Your task to perform on an android device: Show me productivity apps on the Play Store Image 0: 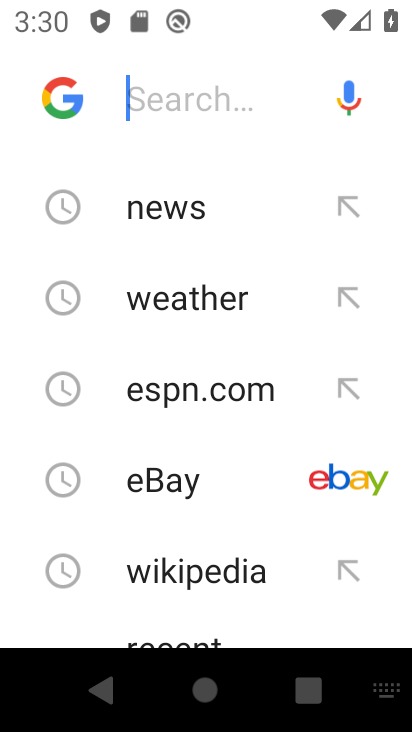
Step 0: press home button
Your task to perform on an android device: Show me productivity apps on the Play Store Image 1: 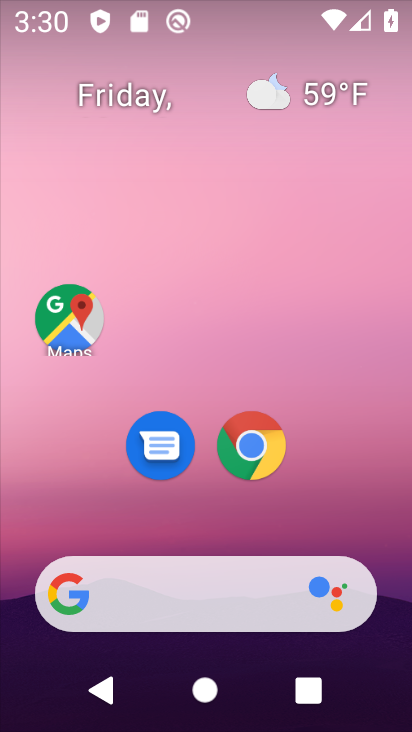
Step 1: drag from (398, 580) to (317, 112)
Your task to perform on an android device: Show me productivity apps on the Play Store Image 2: 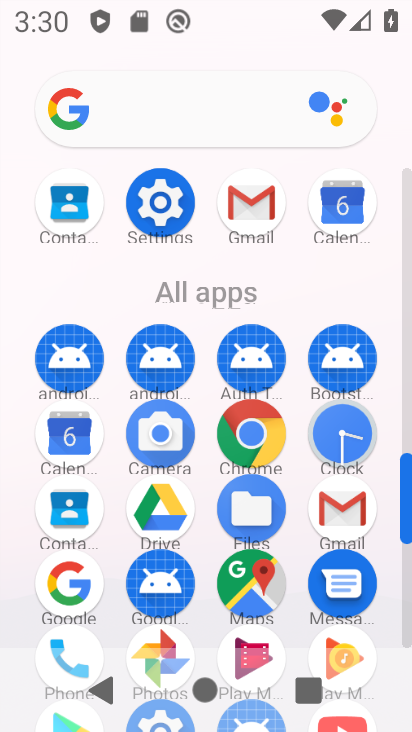
Step 2: click (409, 637)
Your task to perform on an android device: Show me productivity apps on the Play Store Image 3: 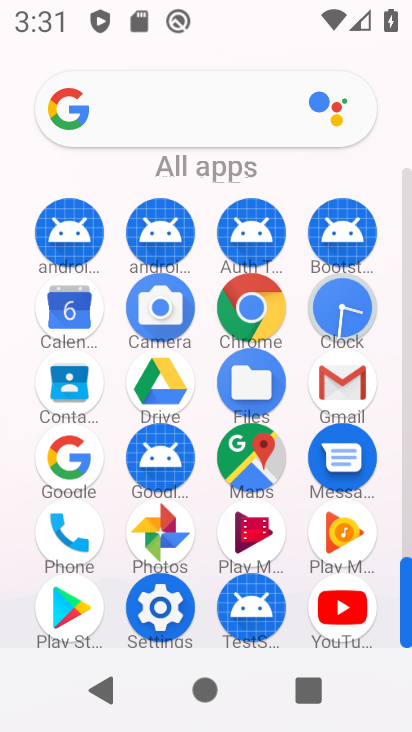
Step 3: click (51, 601)
Your task to perform on an android device: Show me productivity apps on the Play Store Image 4: 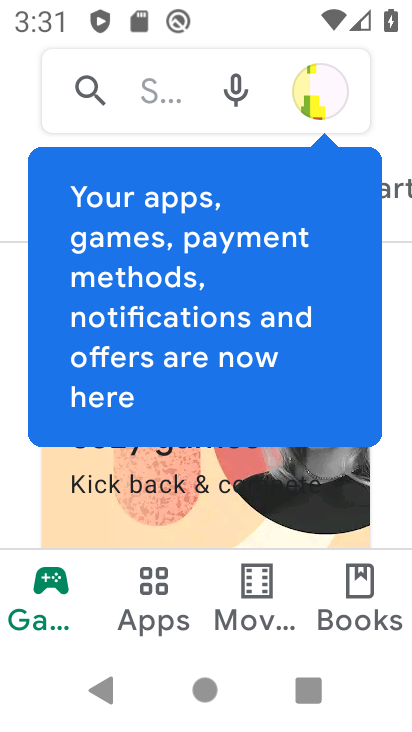
Step 4: click (147, 634)
Your task to perform on an android device: Show me productivity apps on the Play Store Image 5: 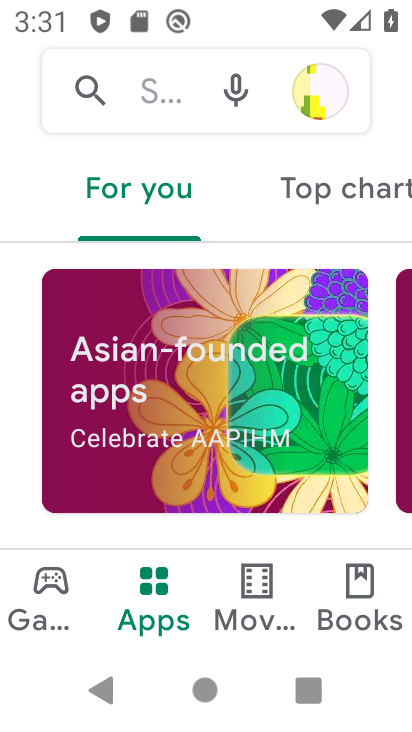
Step 5: drag from (347, 194) to (16, 194)
Your task to perform on an android device: Show me productivity apps on the Play Store Image 6: 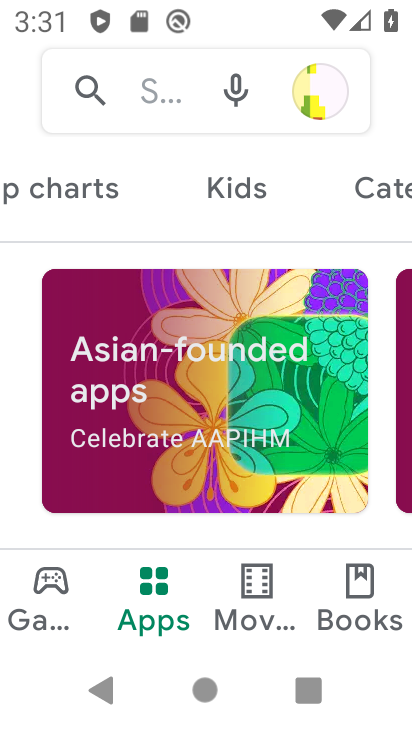
Step 6: click (377, 182)
Your task to perform on an android device: Show me productivity apps on the Play Store Image 7: 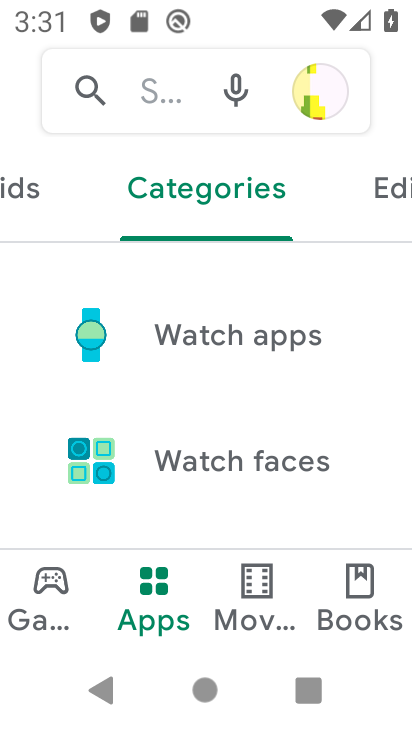
Step 7: drag from (266, 462) to (245, 86)
Your task to perform on an android device: Show me productivity apps on the Play Store Image 8: 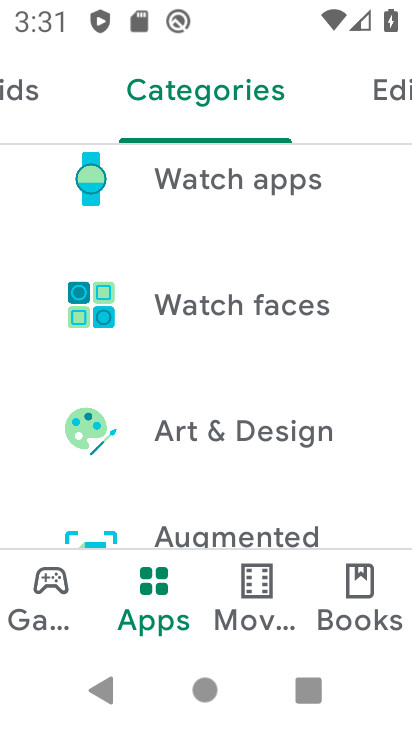
Step 8: drag from (269, 496) to (248, 73)
Your task to perform on an android device: Show me productivity apps on the Play Store Image 9: 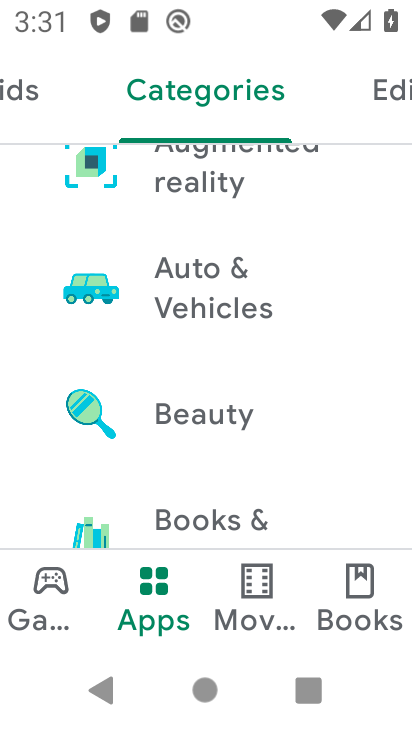
Step 9: drag from (297, 507) to (207, 15)
Your task to perform on an android device: Show me productivity apps on the Play Store Image 10: 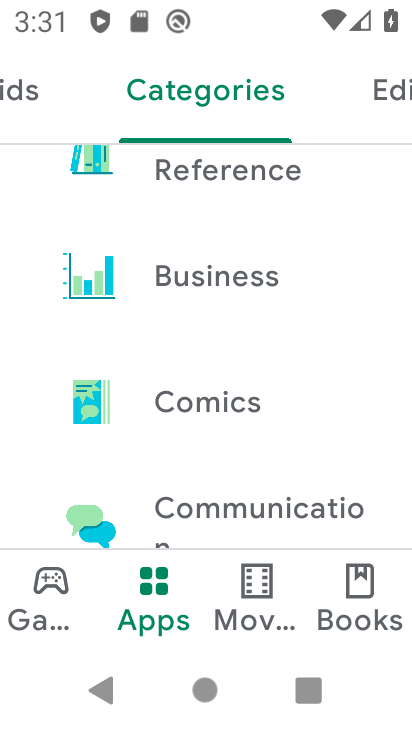
Step 10: drag from (276, 477) to (230, 2)
Your task to perform on an android device: Show me productivity apps on the Play Store Image 11: 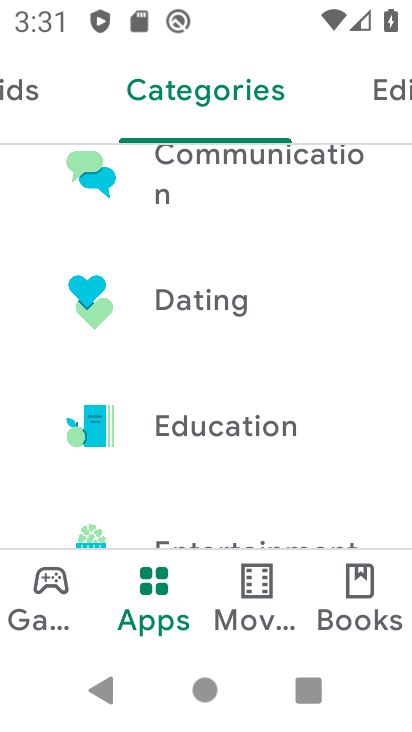
Step 11: drag from (281, 469) to (250, 0)
Your task to perform on an android device: Show me productivity apps on the Play Store Image 12: 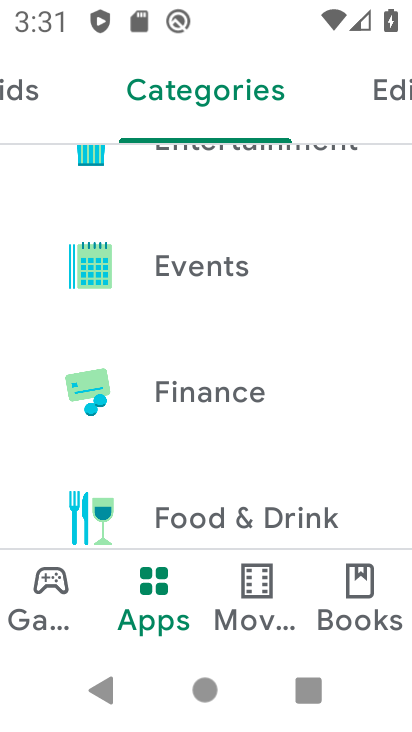
Step 12: drag from (309, 497) to (255, 0)
Your task to perform on an android device: Show me productivity apps on the Play Store Image 13: 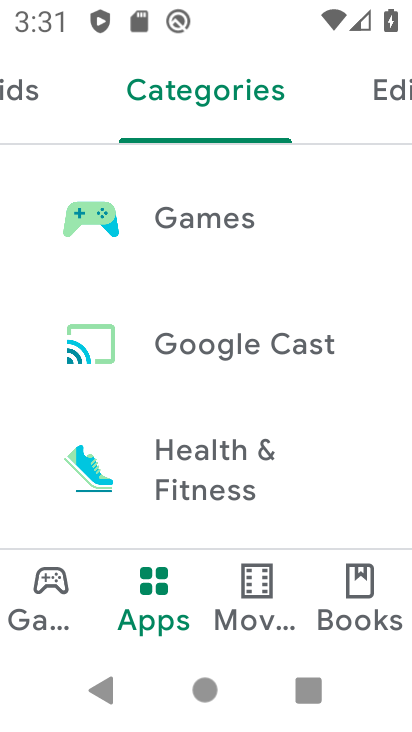
Step 13: drag from (269, 453) to (239, 0)
Your task to perform on an android device: Show me productivity apps on the Play Store Image 14: 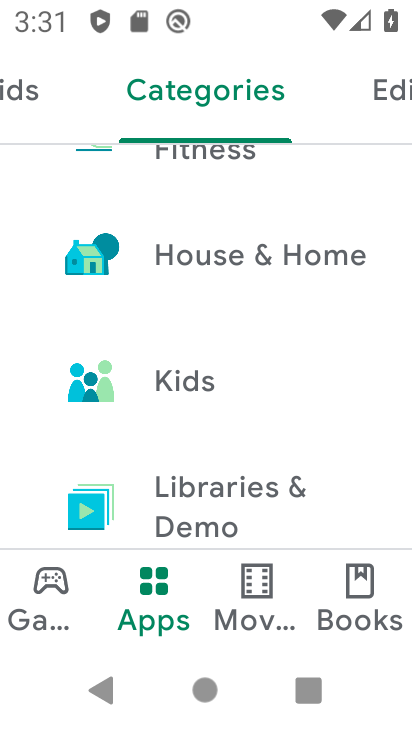
Step 14: drag from (253, 477) to (224, 44)
Your task to perform on an android device: Show me productivity apps on the Play Store Image 15: 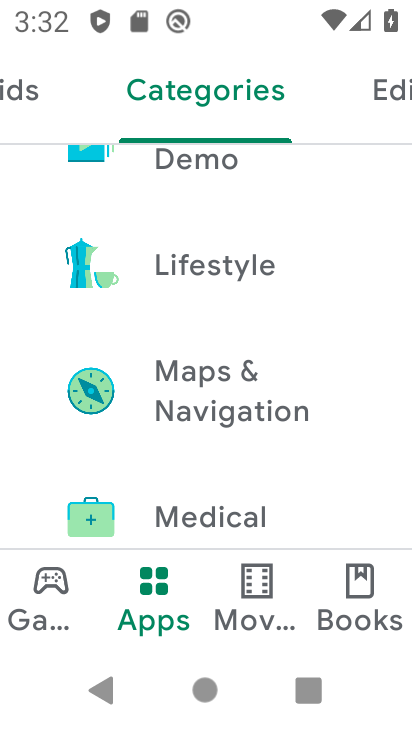
Step 15: drag from (258, 504) to (248, 59)
Your task to perform on an android device: Show me productivity apps on the Play Store Image 16: 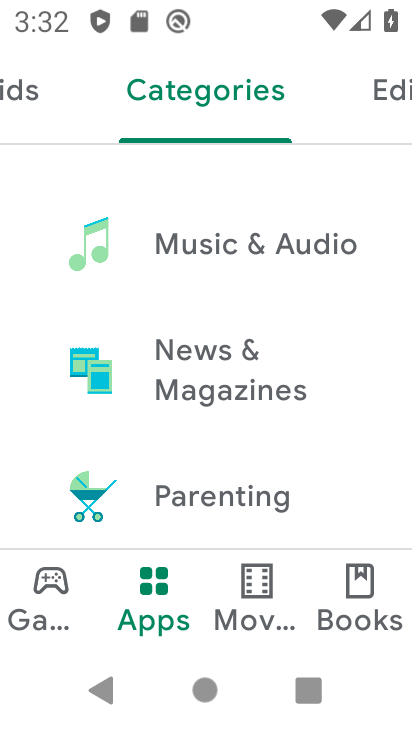
Step 16: drag from (271, 517) to (217, 17)
Your task to perform on an android device: Show me productivity apps on the Play Store Image 17: 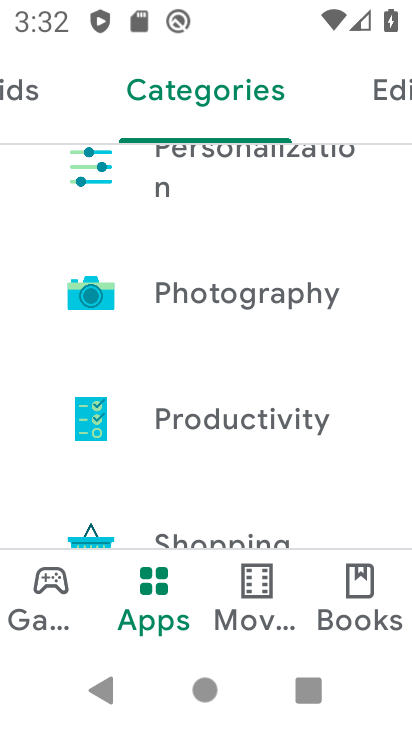
Step 17: click (210, 423)
Your task to perform on an android device: Show me productivity apps on the Play Store Image 18: 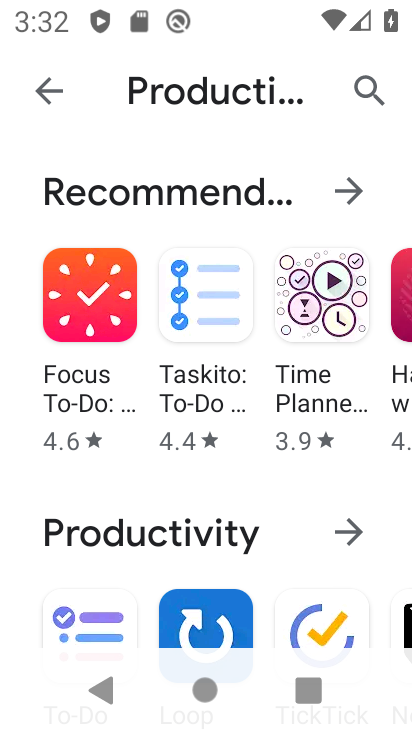
Step 18: task complete